Your task to perform on an android device: delete location history Image 0: 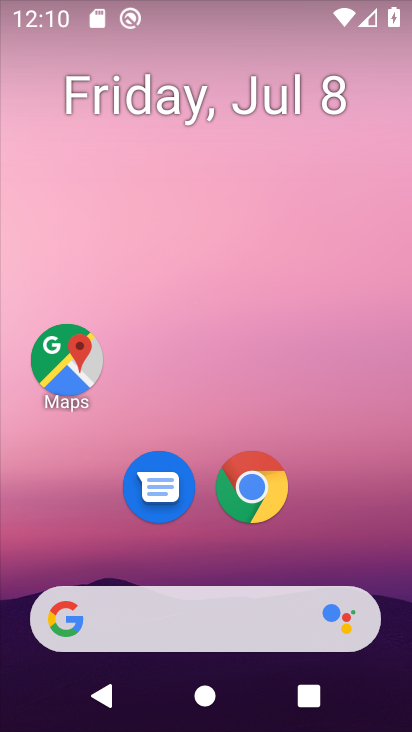
Step 0: click (364, 139)
Your task to perform on an android device: delete location history Image 1: 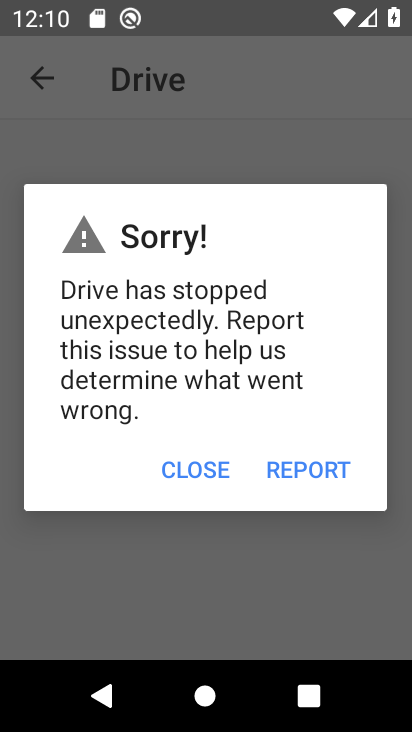
Step 1: press home button
Your task to perform on an android device: delete location history Image 2: 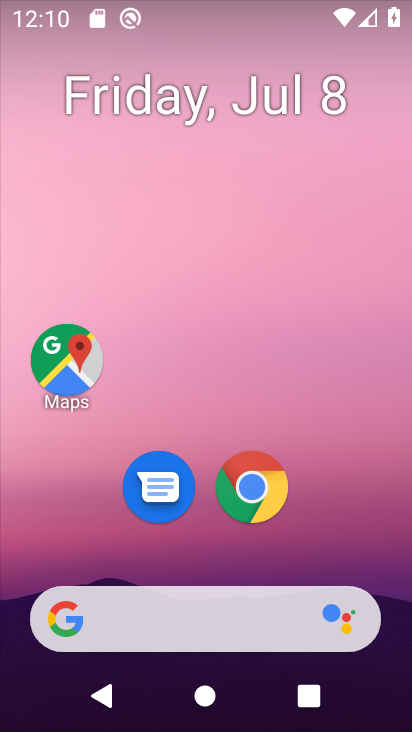
Step 2: drag from (364, 523) to (369, 106)
Your task to perform on an android device: delete location history Image 3: 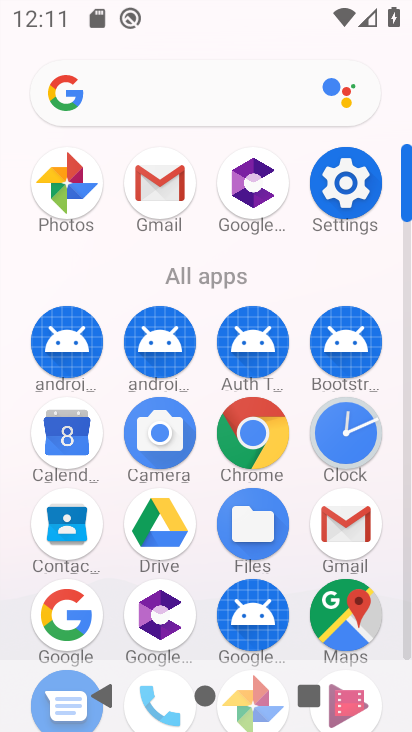
Step 3: click (352, 614)
Your task to perform on an android device: delete location history Image 4: 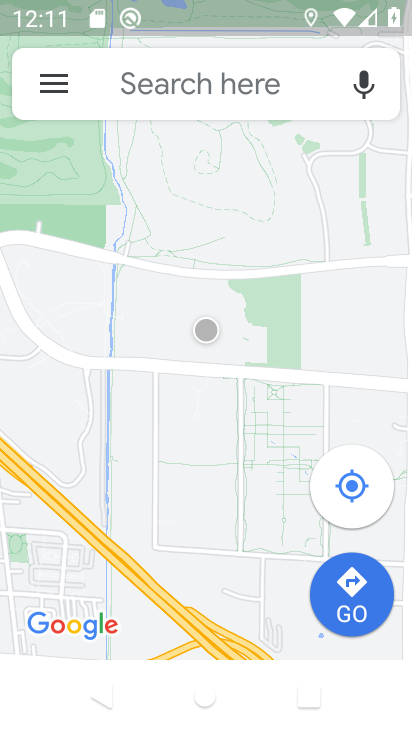
Step 4: click (59, 84)
Your task to perform on an android device: delete location history Image 5: 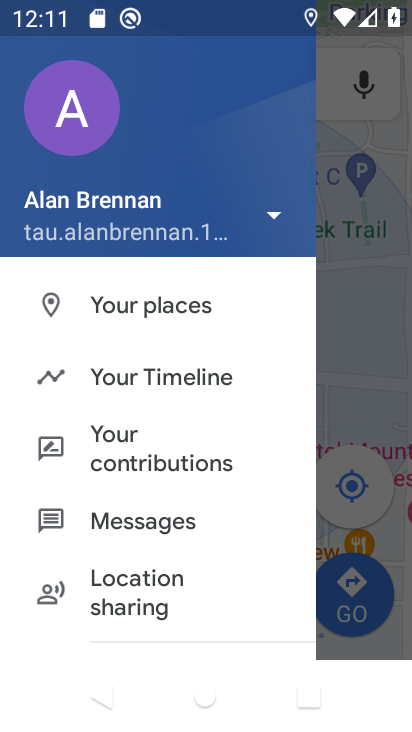
Step 5: click (187, 381)
Your task to perform on an android device: delete location history Image 6: 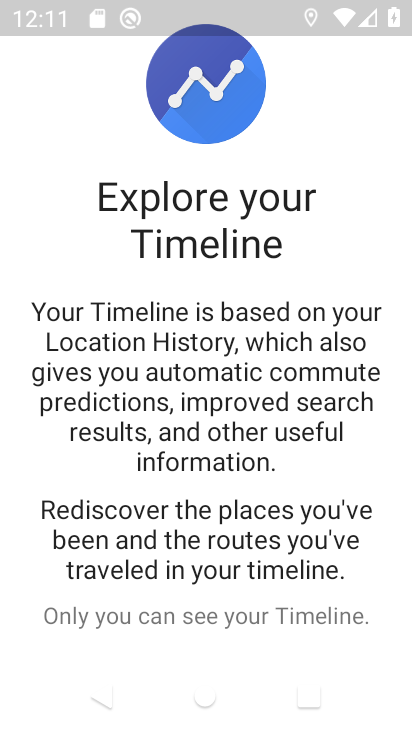
Step 6: drag from (257, 478) to (265, 307)
Your task to perform on an android device: delete location history Image 7: 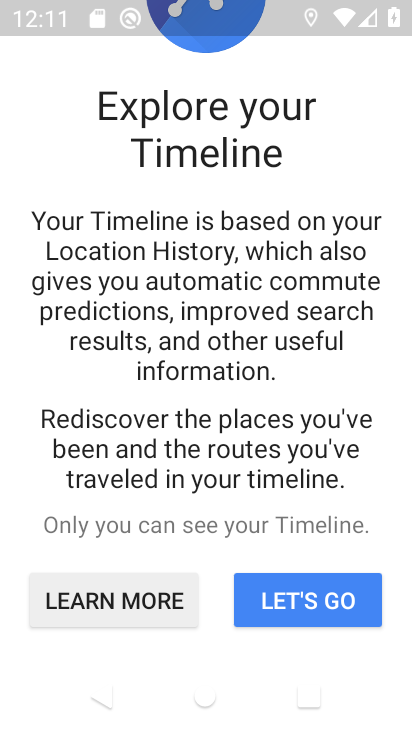
Step 7: click (308, 588)
Your task to perform on an android device: delete location history Image 8: 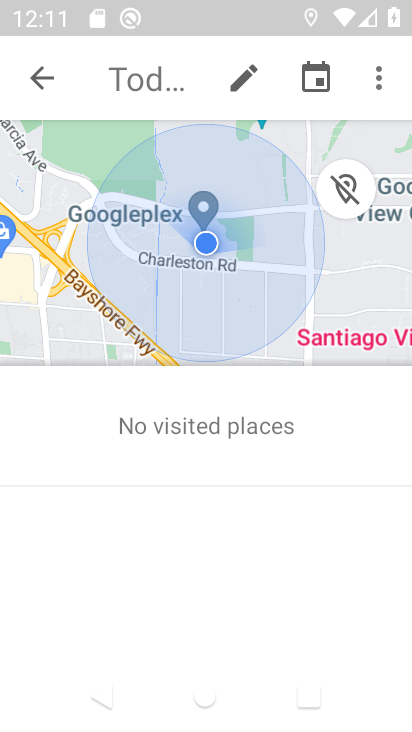
Step 8: click (377, 85)
Your task to perform on an android device: delete location history Image 9: 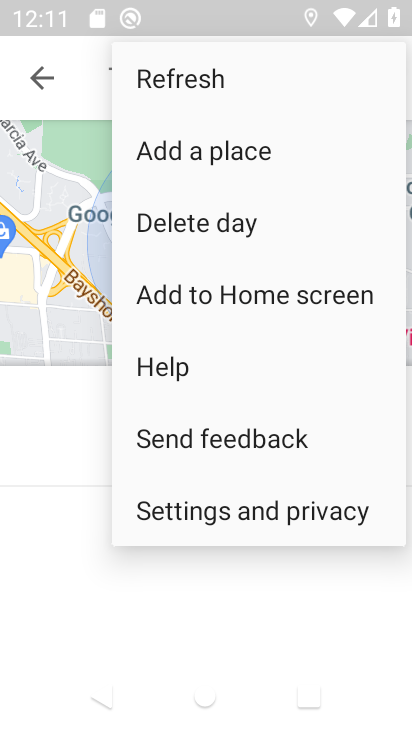
Step 9: click (334, 507)
Your task to perform on an android device: delete location history Image 10: 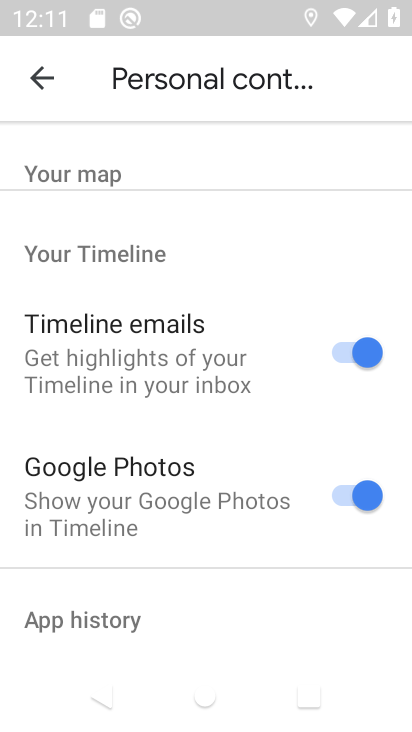
Step 10: drag from (289, 537) to (287, 420)
Your task to perform on an android device: delete location history Image 11: 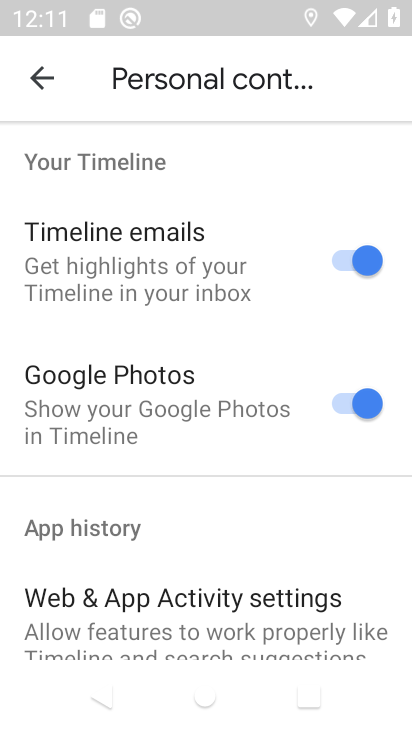
Step 11: drag from (283, 528) to (301, 413)
Your task to perform on an android device: delete location history Image 12: 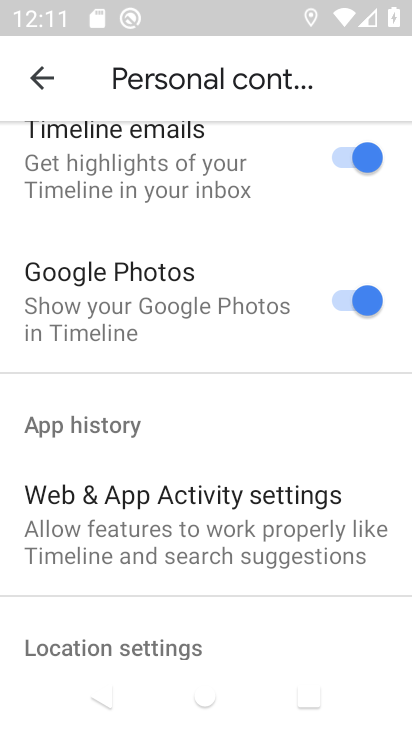
Step 12: drag from (305, 562) to (313, 431)
Your task to perform on an android device: delete location history Image 13: 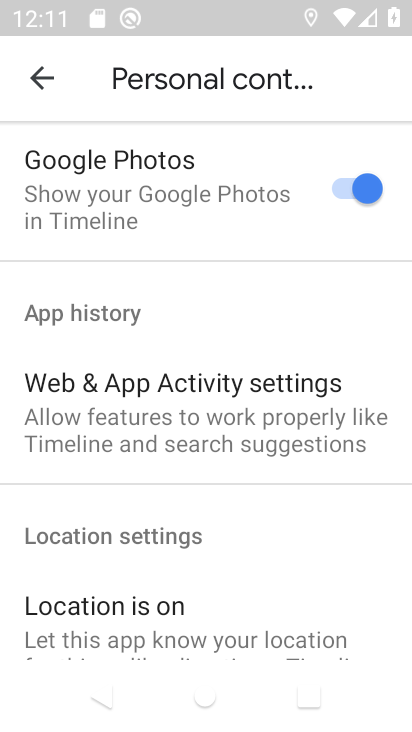
Step 13: drag from (301, 566) to (317, 459)
Your task to perform on an android device: delete location history Image 14: 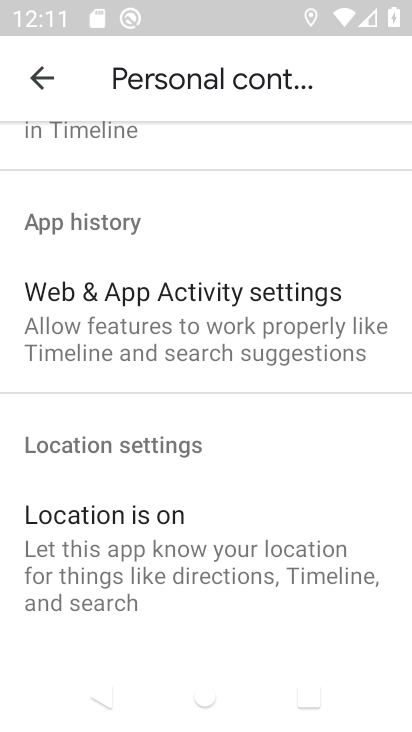
Step 14: drag from (324, 569) to (322, 470)
Your task to perform on an android device: delete location history Image 15: 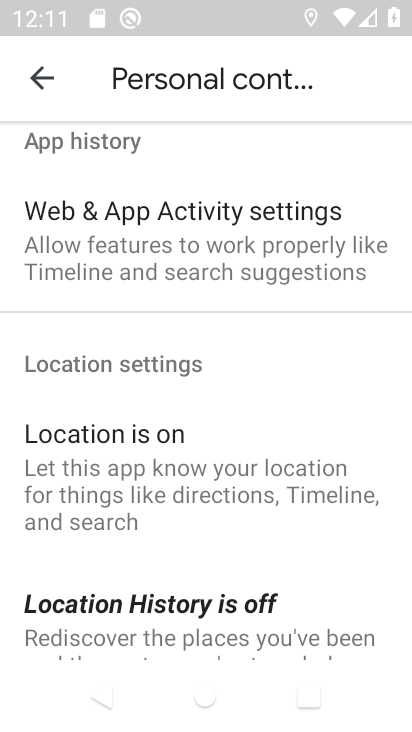
Step 15: drag from (317, 586) to (315, 405)
Your task to perform on an android device: delete location history Image 16: 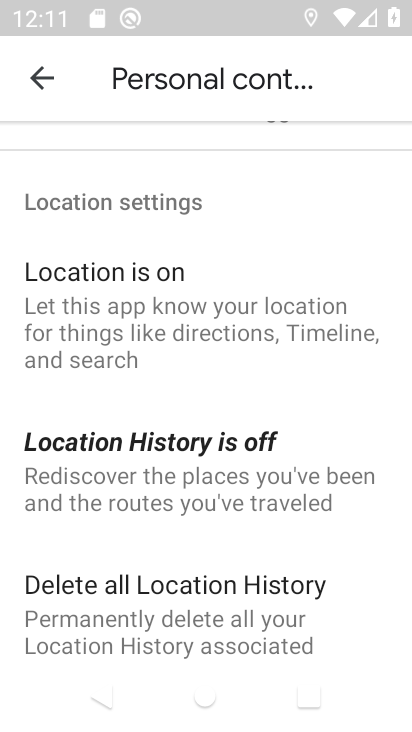
Step 16: click (304, 600)
Your task to perform on an android device: delete location history Image 17: 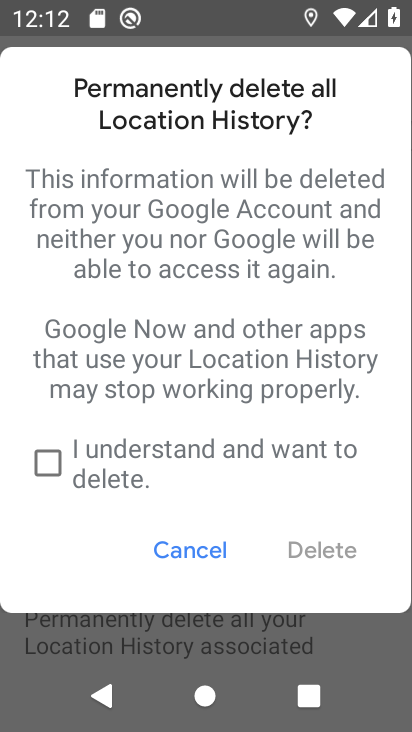
Step 17: click (82, 471)
Your task to perform on an android device: delete location history Image 18: 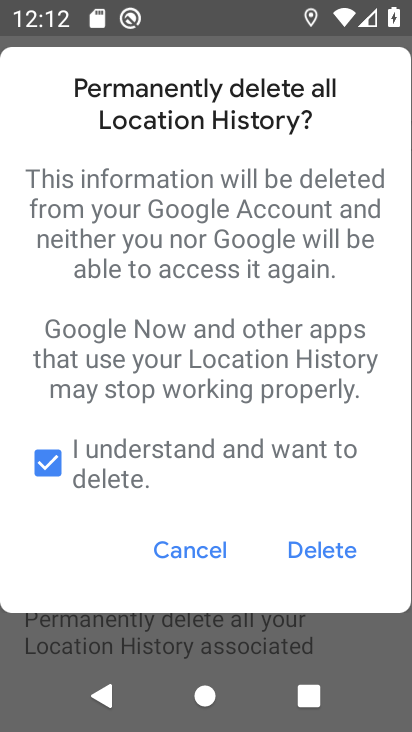
Step 18: click (342, 544)
Your task to perform on an android device: delete location history Image 19: 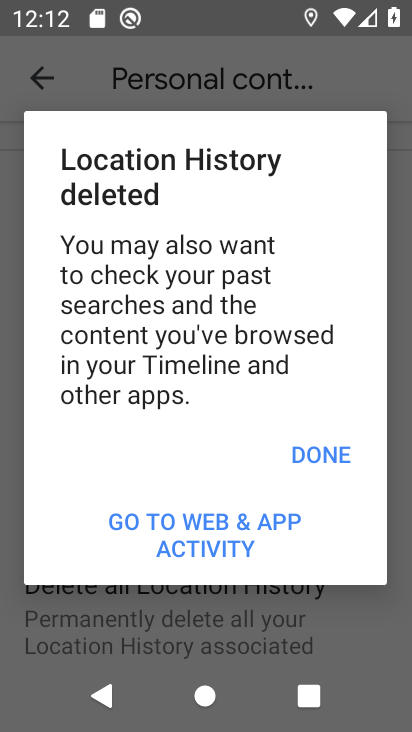
Step 19: click (348, 455)
Your task to perform on an android device: delete location history Image 20: 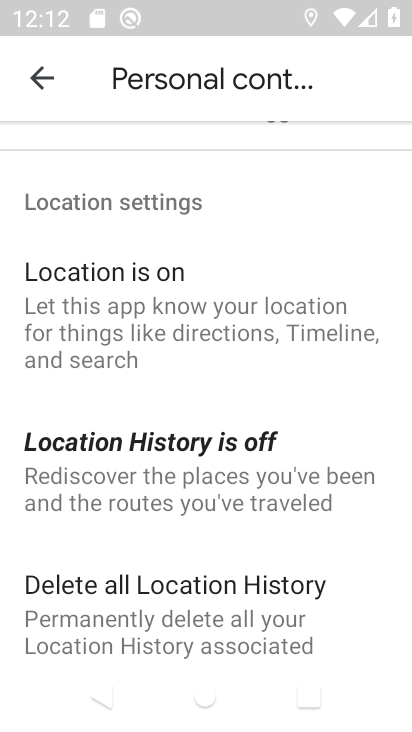
Step 20: task complete